Your task to perform on an android device: Show the shopping cart on costco.com. Add "logitech g502" to the cart on costco.com, then select checkout. Image 0: 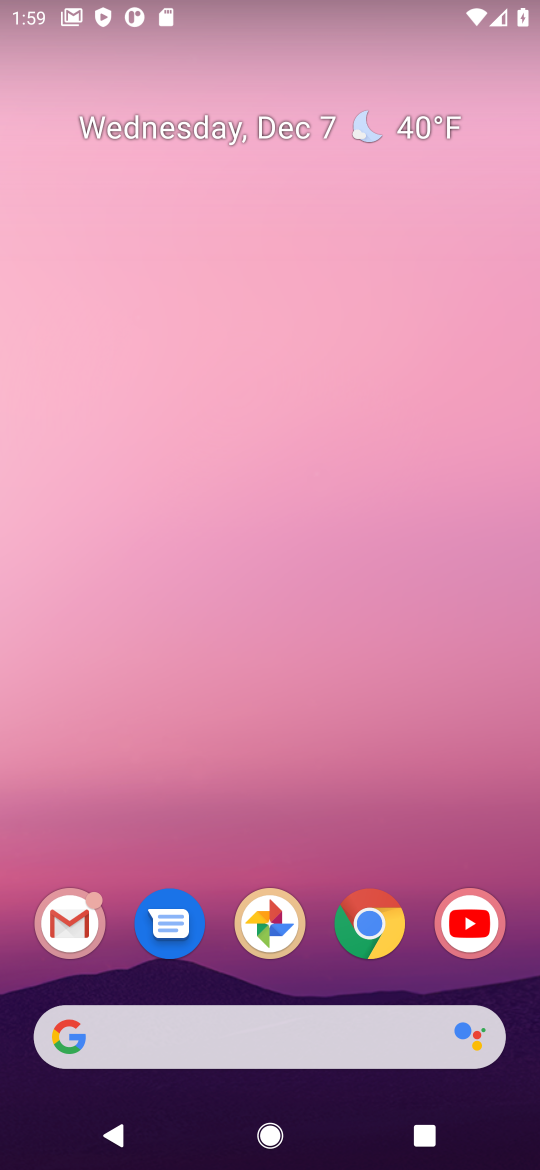
Step 0: task complete